Your task to perform on an android device: Is it going to rain today? Image 0: 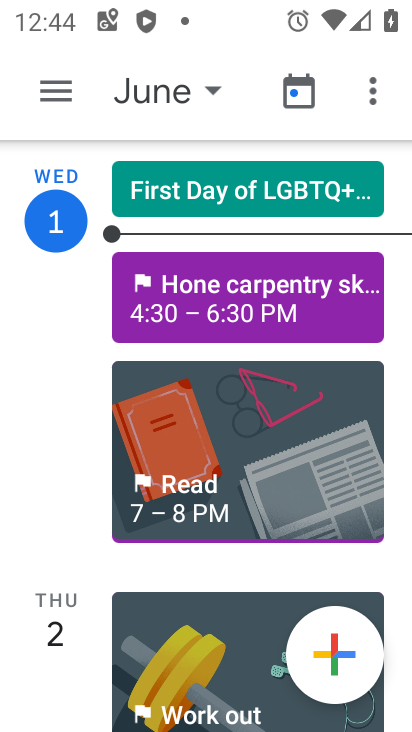
Step 0: press home button
Your task to perform on an android device: Is it going to rain today? Image 1: 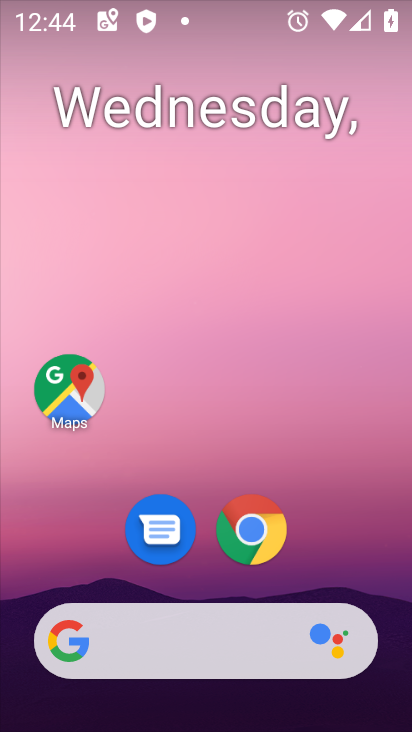
Step 1: drag from (14, 256) to (366, 305)
Your task to perform on an android device: Is it going to rain today? Image 2: 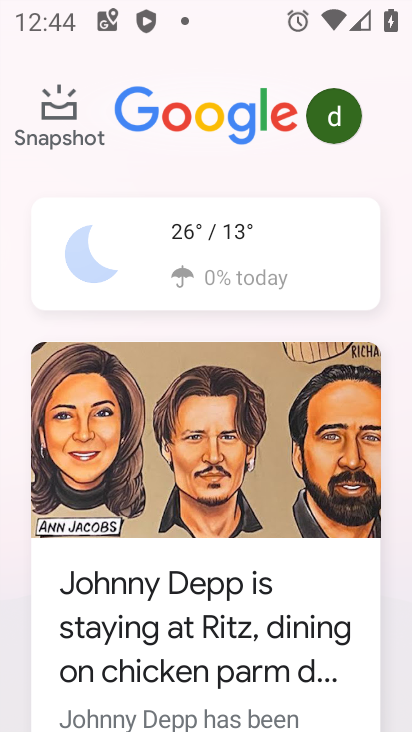
Step 2: click (261, 255)
Your task to perform on an android device: Is it going to rain today? Image 3: 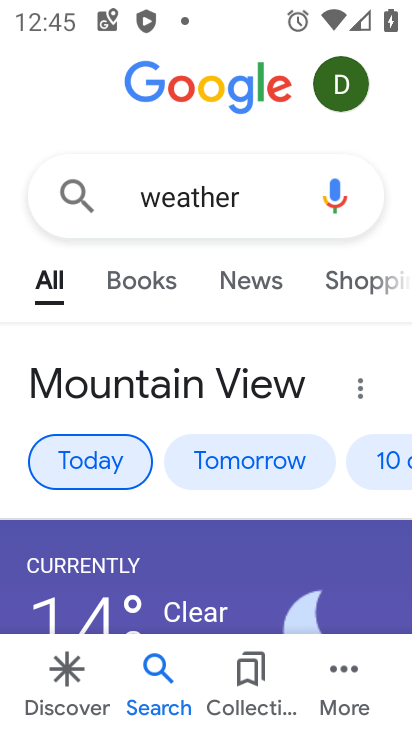
Step 3: task complete